Your task to perform on an android device: Go to internet settings Image 0: 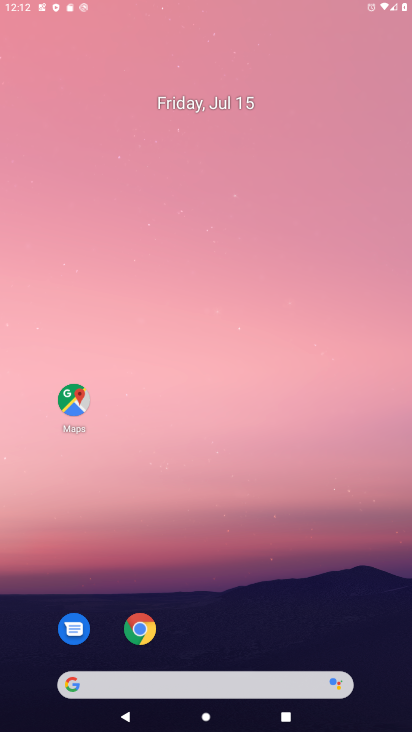
Step 0: press home button
Your task to perform on an android device: Go to internet settings Image 1: 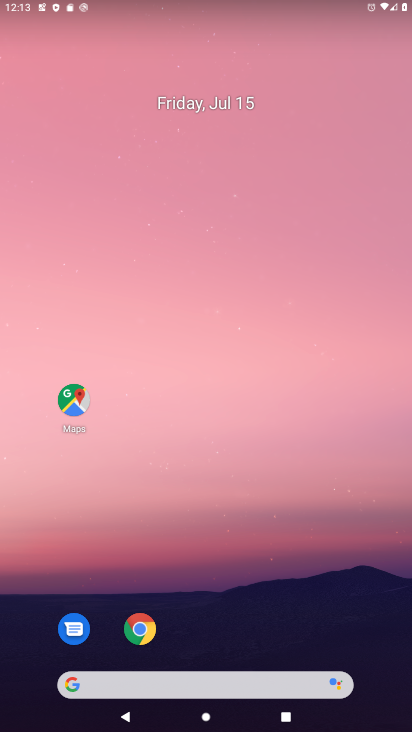
Step 1: drag from (263, 645) to (287, 197)
Your task to perform on an android device: Go to internet settings Image 2: 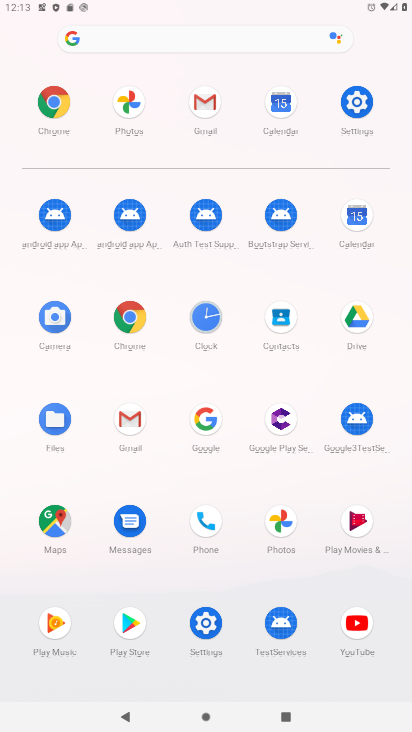
Step 2: click (356, 102)
Your task to perform on an android device: Go to internet settings Image 3: 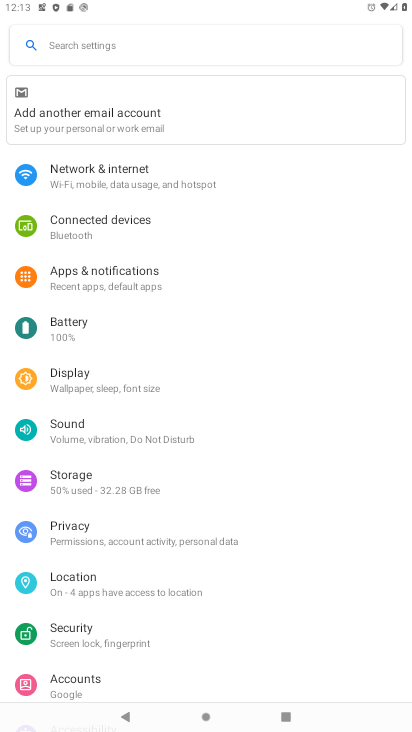
Step 3: click (102, 183)
Your task to perform on an android device: Go to internet settings Image 4: 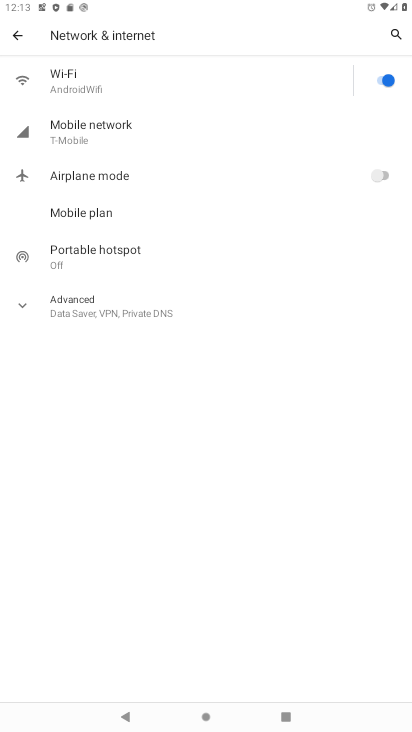
Step 4: task complete